Your task to perform on an android device: see sites visited before in the chrome app Image 0: 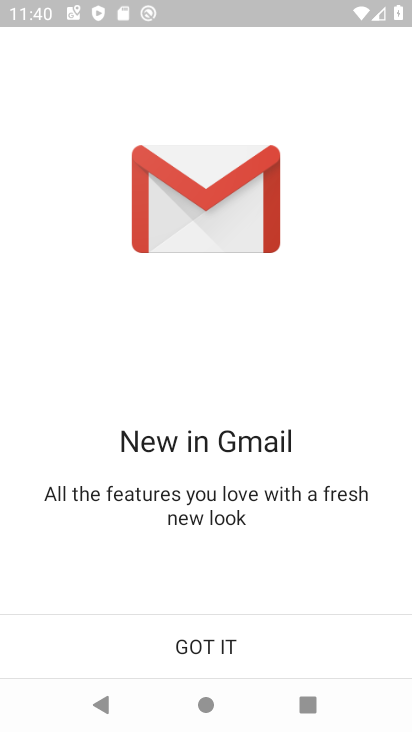
Step 0: click (208, 641)
Your task to perform on an android device: see sites visited before in the chrome app Image 1: 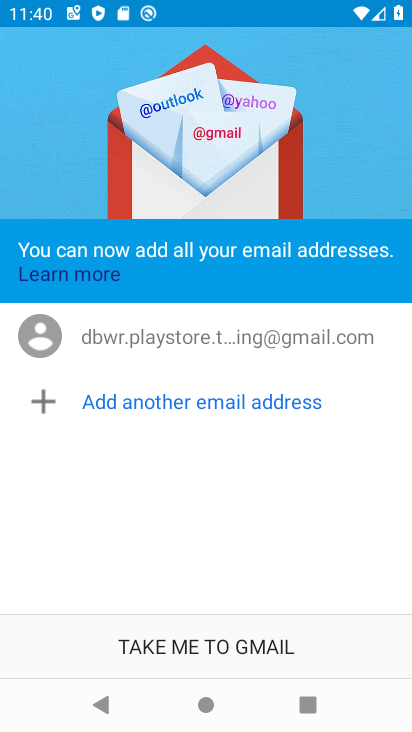
Step 1: press home button
Your task to perform on an android device: see sites visited before in the chrome app Image 2: 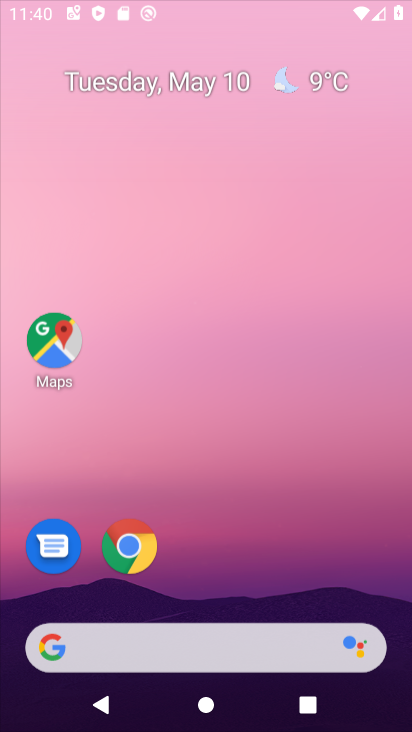
Step 2: drag from (205, 561) to (371, 60)
Your task to perform on an android device: see sites visited before in the chrome app Image 3: 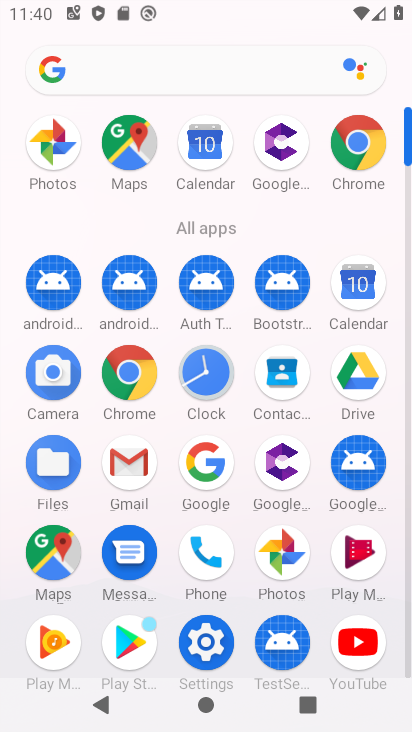
Step 3: click (359, 141)
Your task to perform on an android device: see sites visited before in the chrome app Image 4: 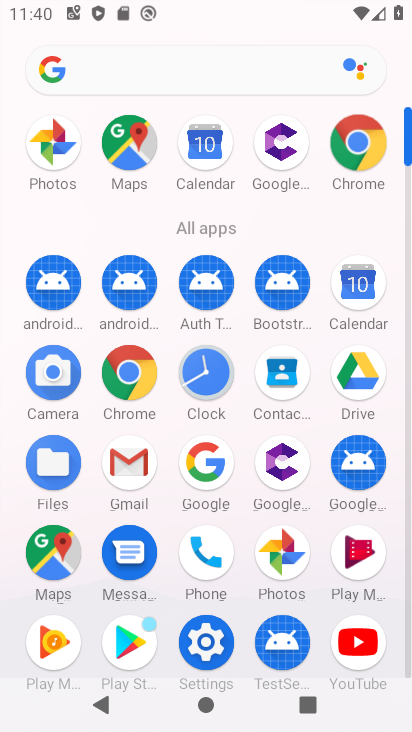
Step 4: click (359, 141)
Your task to perform on an android device: see sites visited before in the chrome app Image 5: 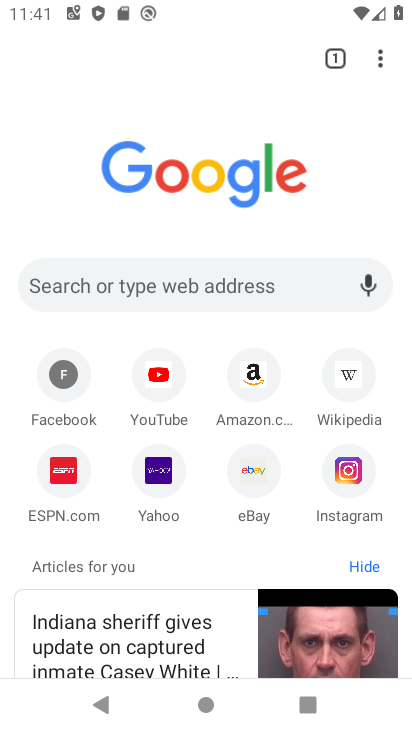
Step 5: task complete